Your task to perform on an android device: Check the news Image 0: 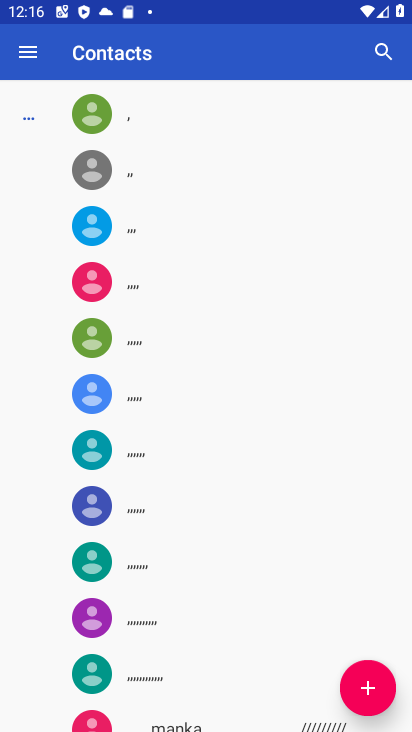
Step 0: task complete